Your task to perform on an android device: Go to wifi settings Image 0: 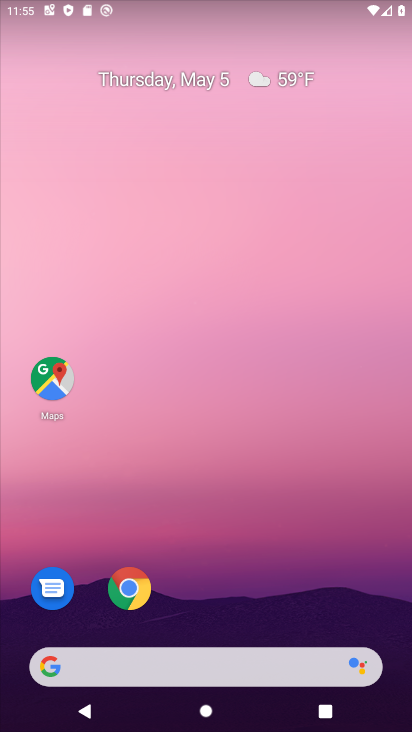
Step 0: drag from (288, 471) to (226, 3)
Your task to perform on an android device: Go to wifi settings Image 1: 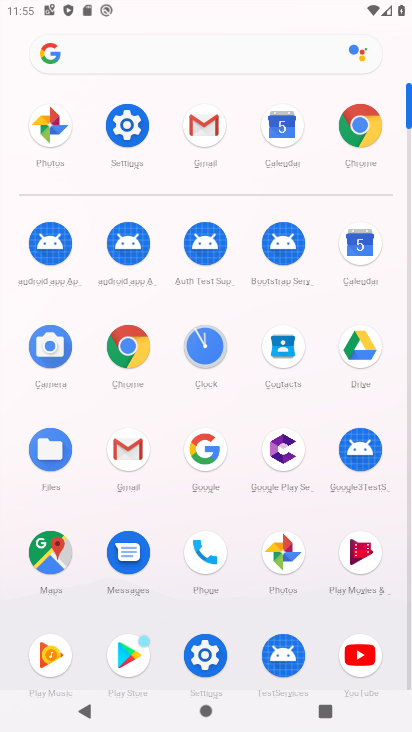
Step 1: click (131, 118)
Your task to perform on an android device: Go to wifi settings Image 2: 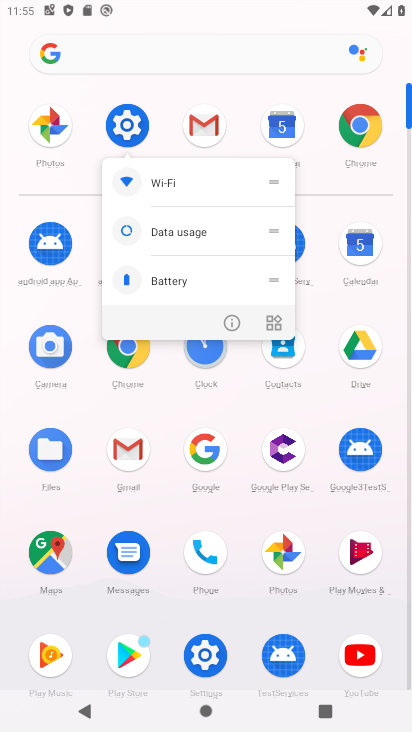
Step 2: click (131, 121)
Your task to perform on an android device: Go to wifi settings Image 3: 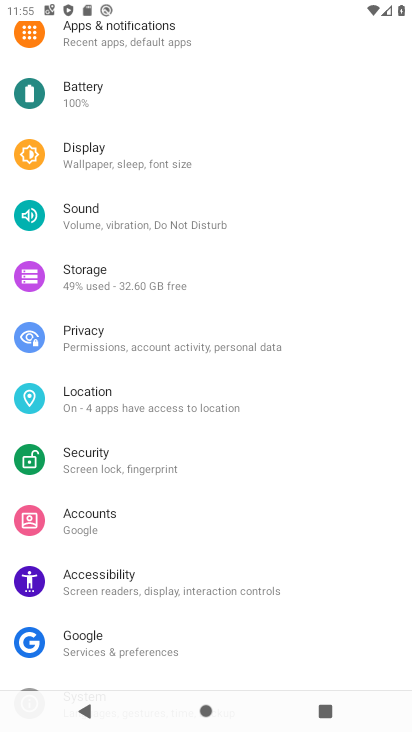
Step 3: drag from (230, 125) to (245, 438)
Your task to perform on an android device: Go to wifi settings Image 4: 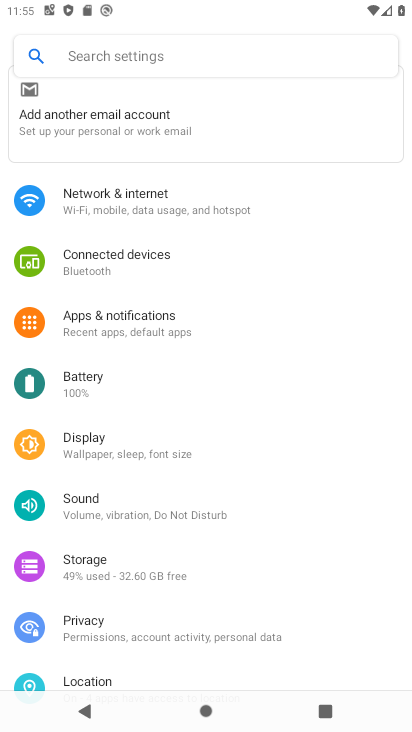
Step 4: click (181, 192)
Your task to perform on an android device: Go to wifi settings Image 5: 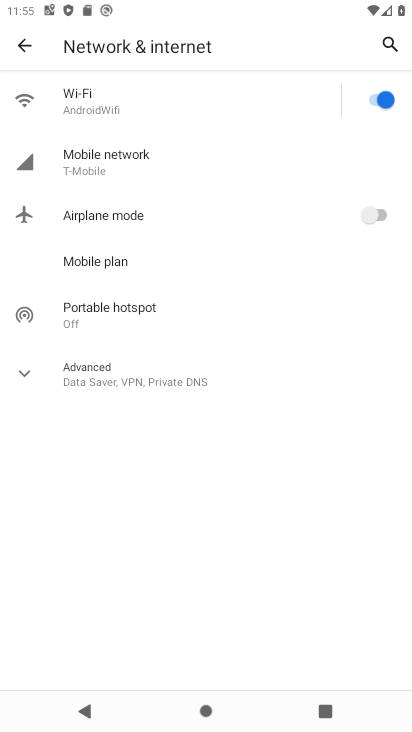
Step 5: click (201, 95)
Your task to perform on an android device: Go to wifi settings Image 6: 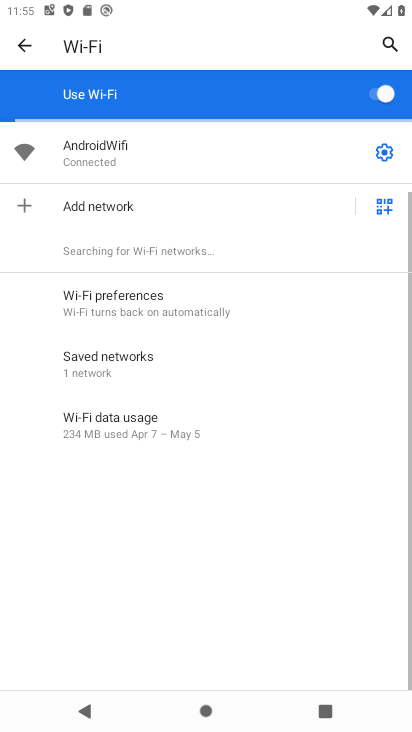
Step 6: task complete